Your task to perform on an android device: Show the shopping cart on ebay. Image 0: 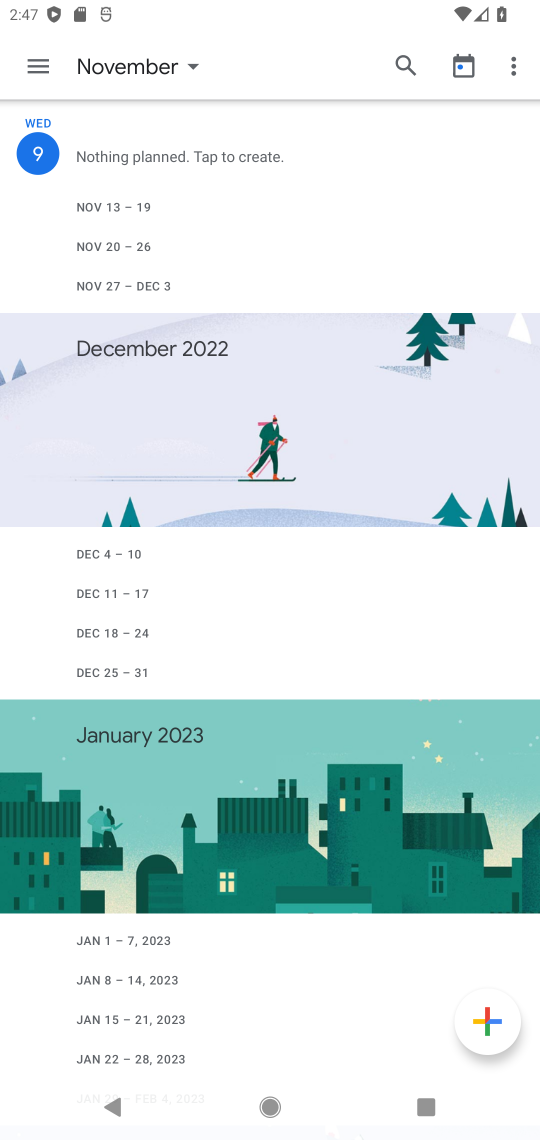
Step 0: press home button
Your task to perform on an android device: Show the shopping cart on ebay. Image 1: 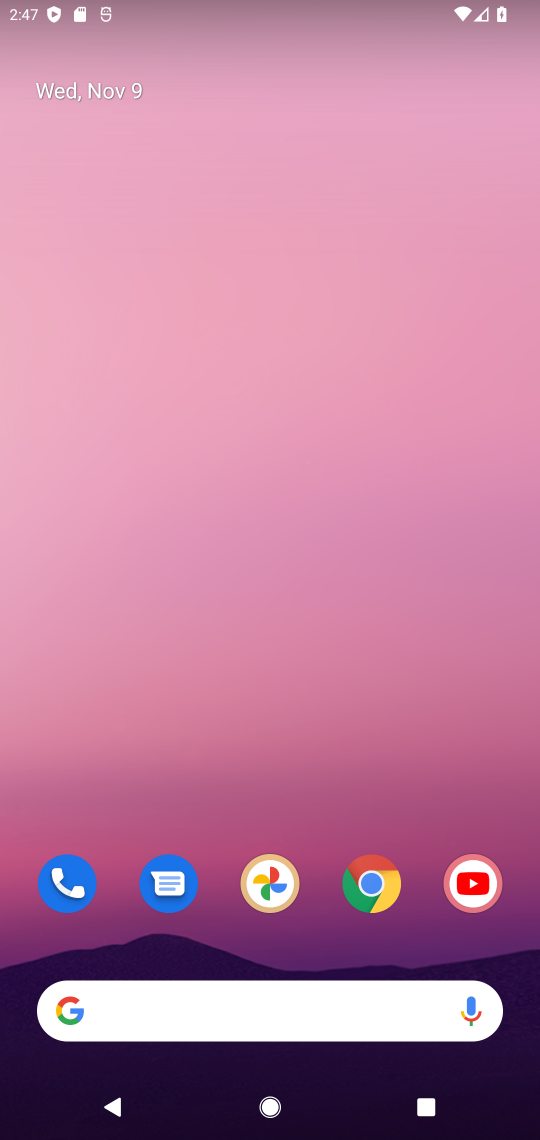
Step 1: click (370, 885)
Your task to perform on an android device: Show the shopping cart on ebay. Image 2: 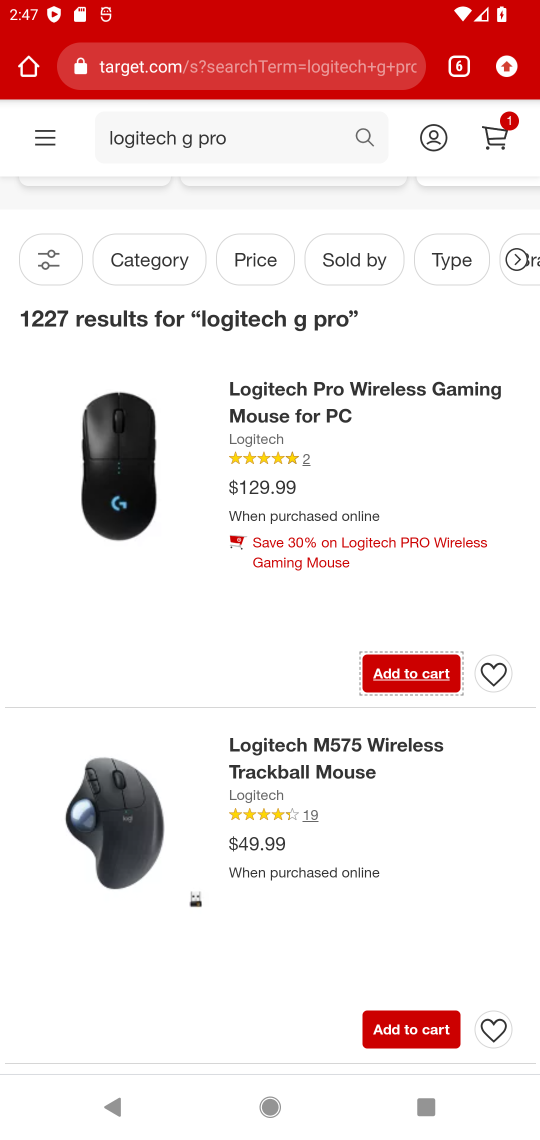
Step 2: click (460, 69)
Your task to perform on an android device: Show the shopping cart on ebay. Image 3: 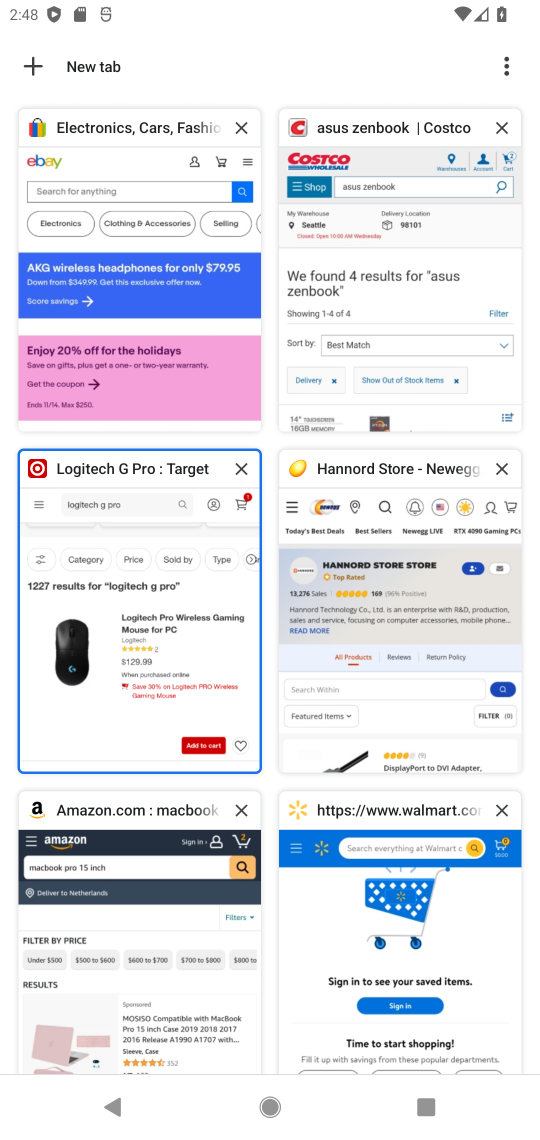
Step 3: click (110, 281)
Your task to perform on an android device: Show the shopping cart on ebay. Image 4: 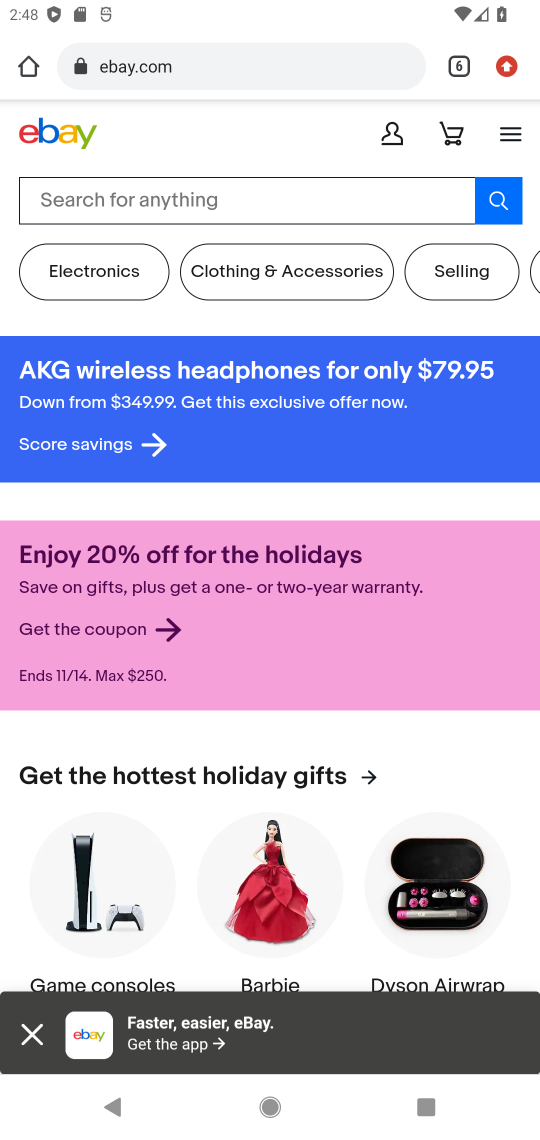
Step 4: click (455, 136)
Your task to perform on an android device: Show the shopping cart on ebay. Image 5: 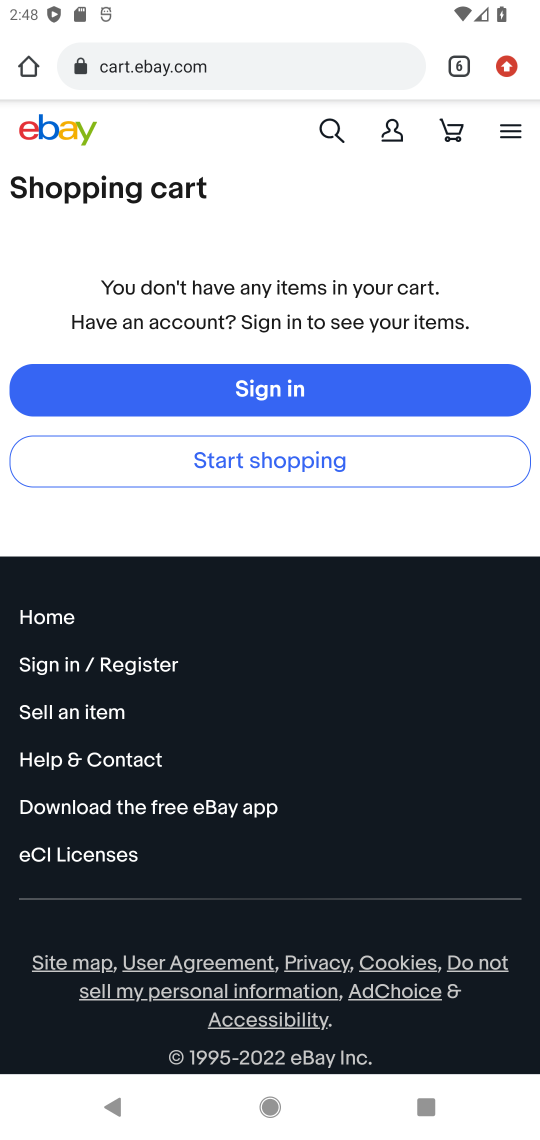
Step 5: task complete